Your task to perform on an android device: check android version Image 0: 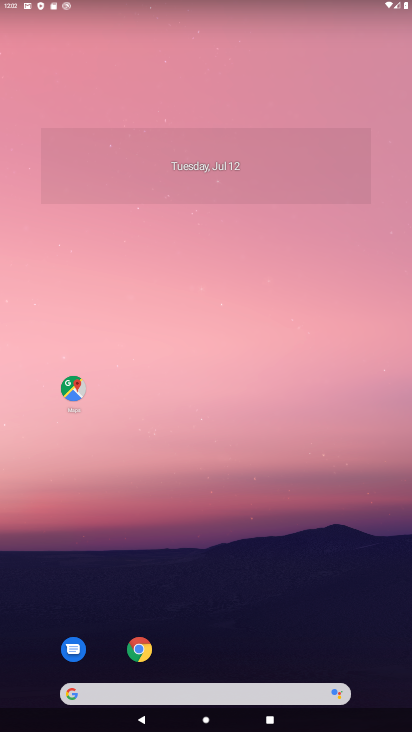
Step 0: drag from (235, 647) to (180, 210)
Your task to perform on an android device: check android version Image 1: 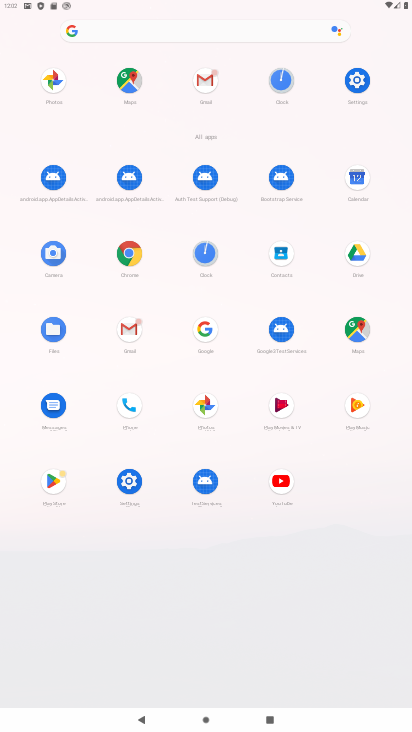
Step 1: click (356, 74)
Your task to perform on an android device: check android version Image 2: 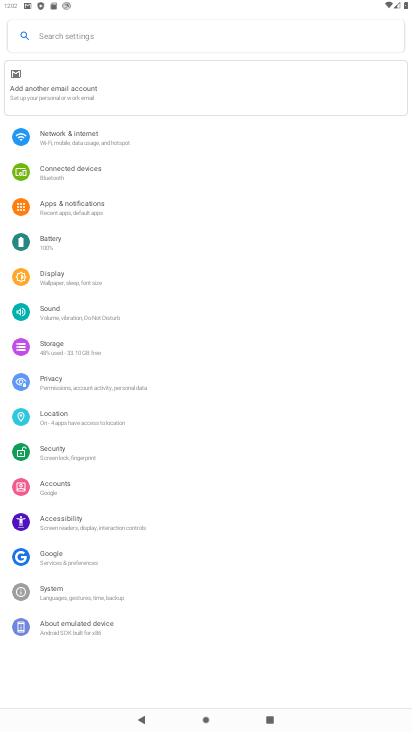
Step 2: click (67, 627)
Your task to perform on an android device: check android version Image 3: 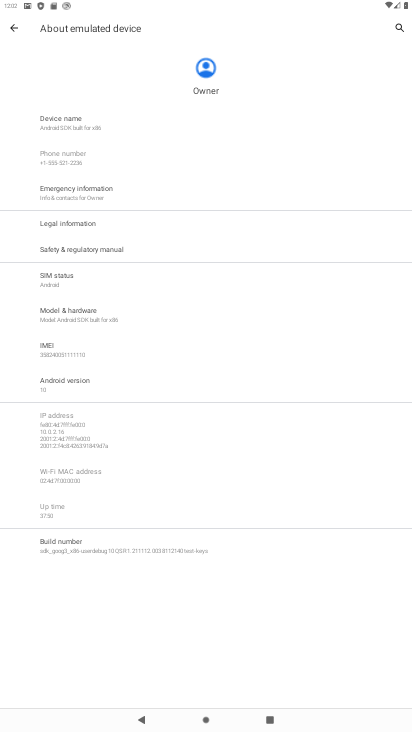
Step 3: click (69, 381)
Your task to perform on an android device: check android version Image 4: 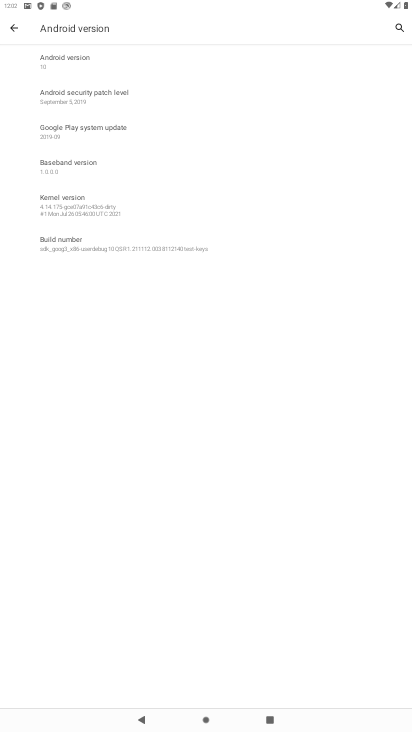
Step 4: task complete